Your task to perform on an android device: Check the news Image 0: 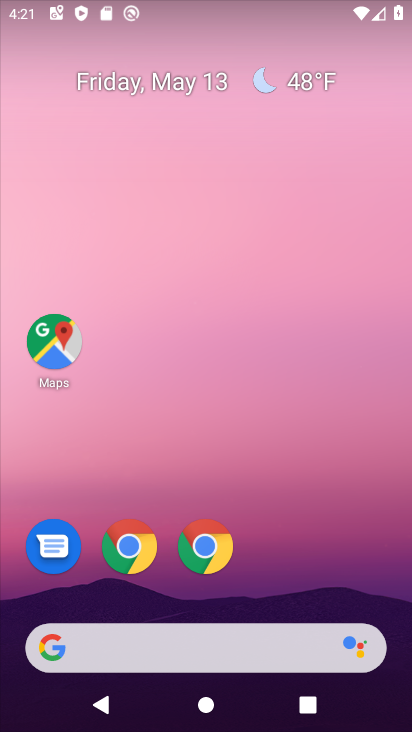
Step 0: drag from (297, 489) to (111, 0)
Your task to perform on an android device: Check the news Image 1: 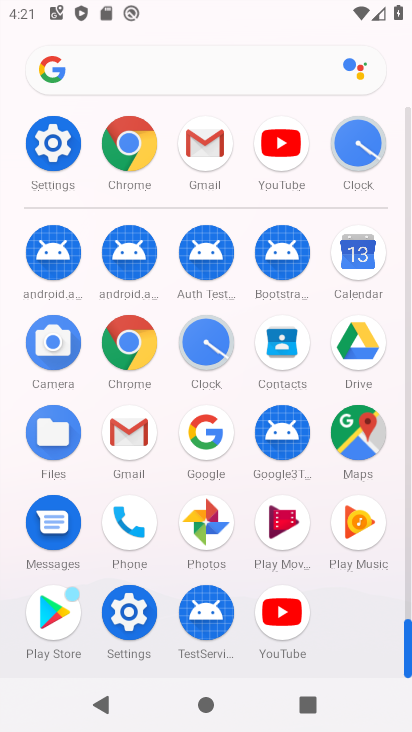
Step 1: press back button
Your task to perform on an android device: Check the news Image 2: 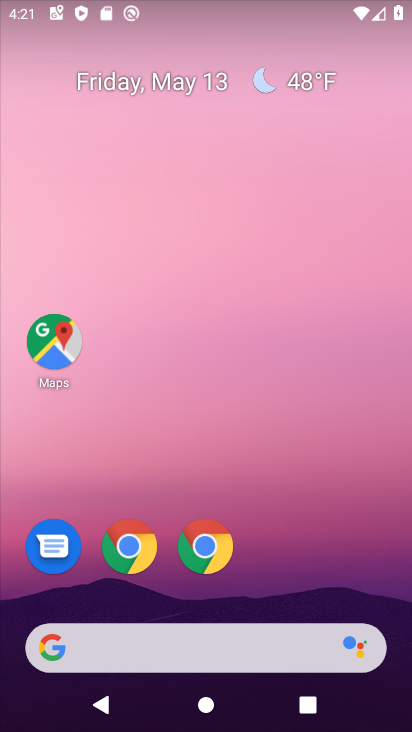
Step 2: drag from (20, 177) to (360, 448)
Your task to perform on an android device: Check the news Image 3: 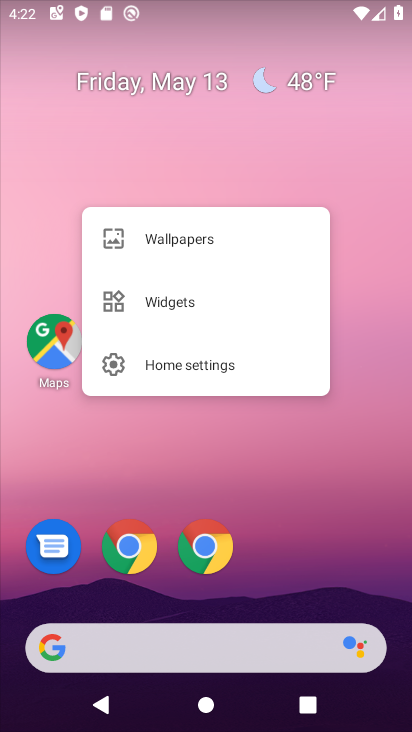
Step 3: drag from (24, 158) to (397, 409)
Your task to perform on an android device: Check the news Image 4: 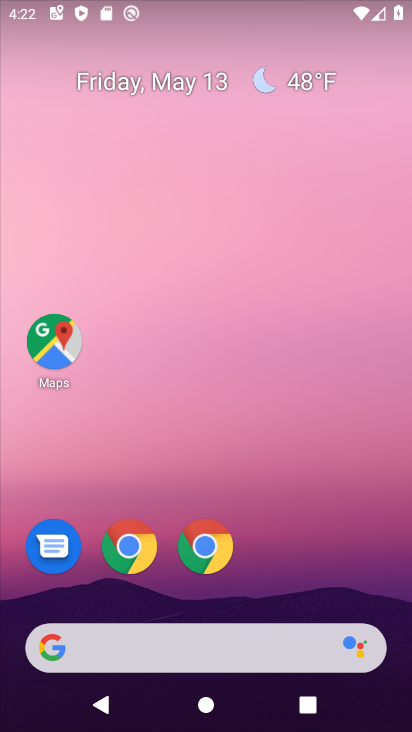
Step 4: drag from (19, 205) to (411, 605)
Your task to perform on an android device: Check the news Image 5: 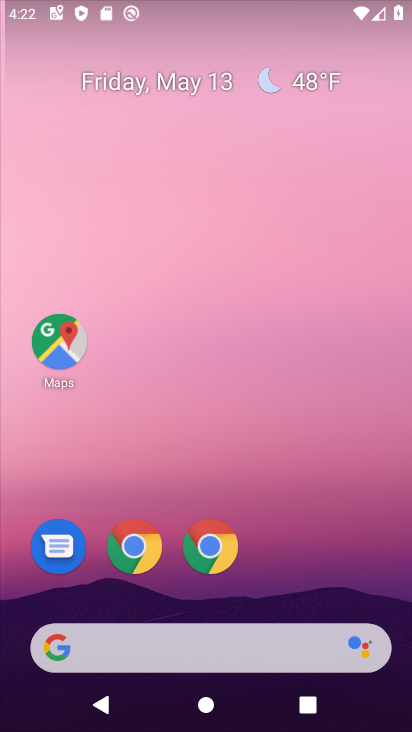
Step 5: drag from (114, 342) to (388, 492)
Your task to perform on an android device: Check the news Image 6: 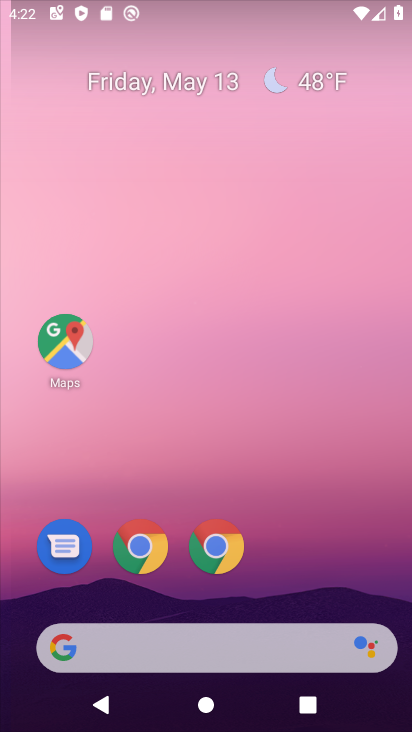
Step 6: drag from (23, 279) to (377, 519)
Your task to perform on an android device: Check the news Image 7: 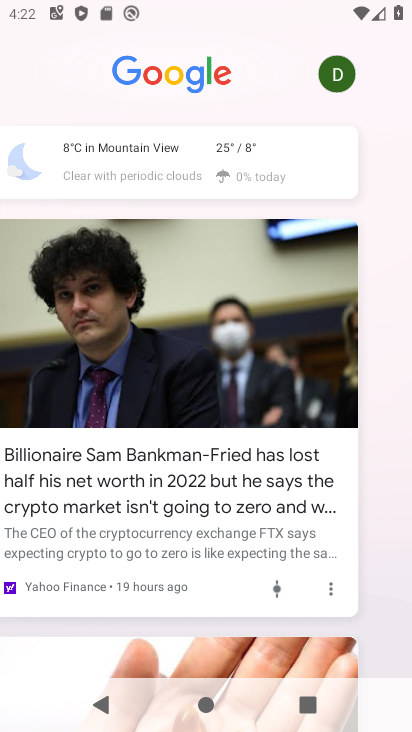
Step 7: drag from (2, 336) to (401, 643)
Your task to perform on an android device: Check the news Image 8: 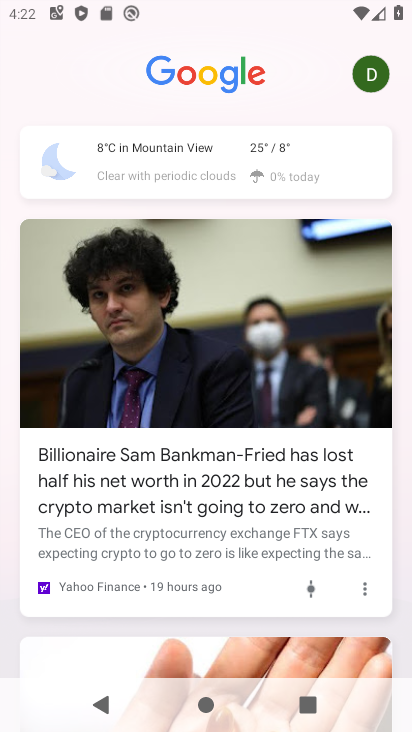
Step 8: drag from (186, 512) to (306, 119)
Your task to perform on an android device: Check the news Image 9: 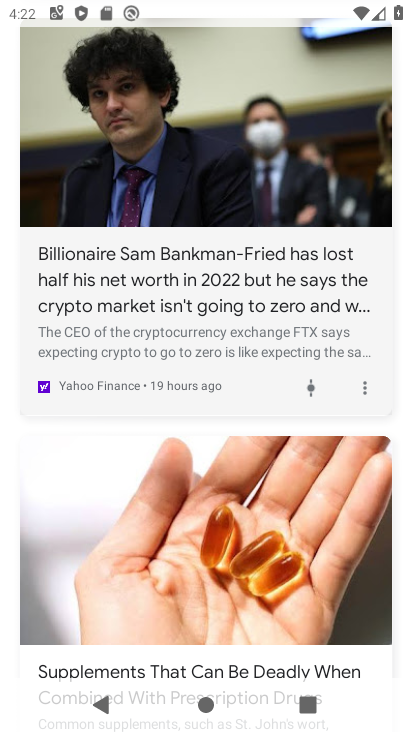
Step 9: drag from (224, 530) to (246, 38)
Your task to perform on an android device: Check the news Image 10: 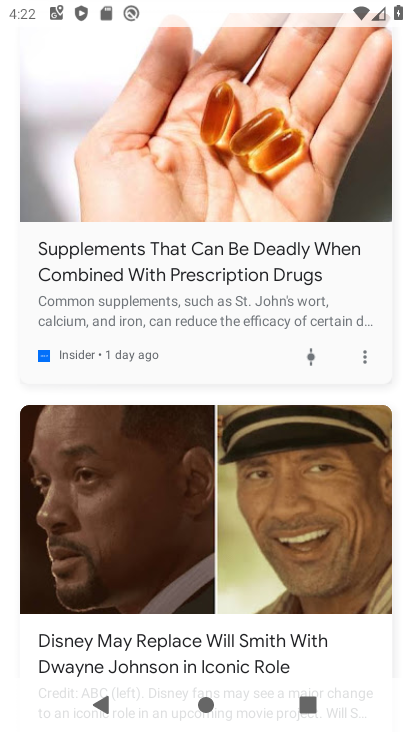
Step 10: drag from (268, 373) to (287, 30)
Your task to perform on an android device: Check the news Image 11: 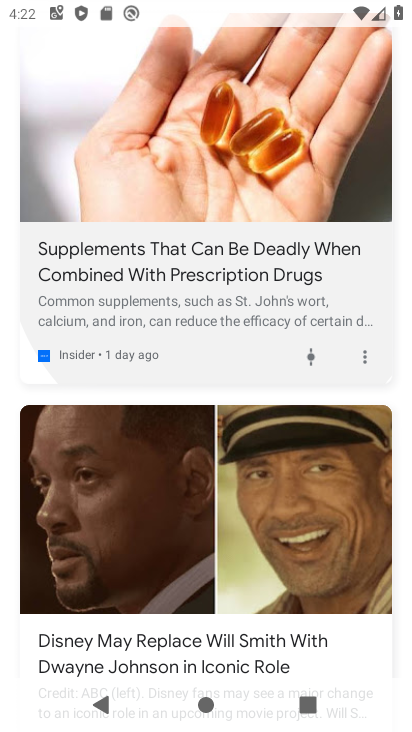
Step 11: drag from (361, 545) to (361, 121)
Your task to perform on an android device: Check the news Image 12: 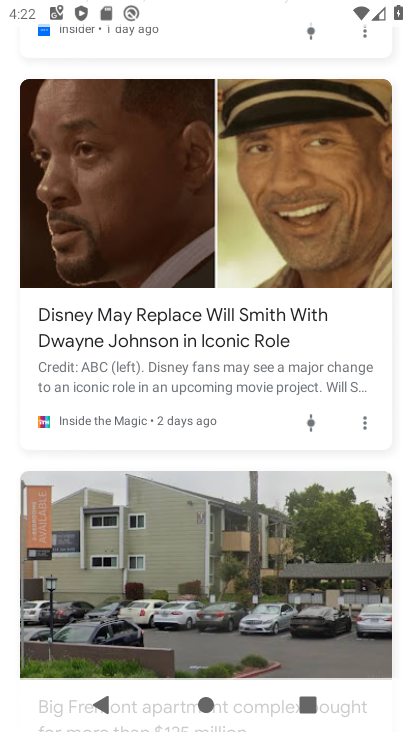
Step 12: drag from (255, 467) to (232, 63)
Your task to perform on an android device: Check the news Image 13: 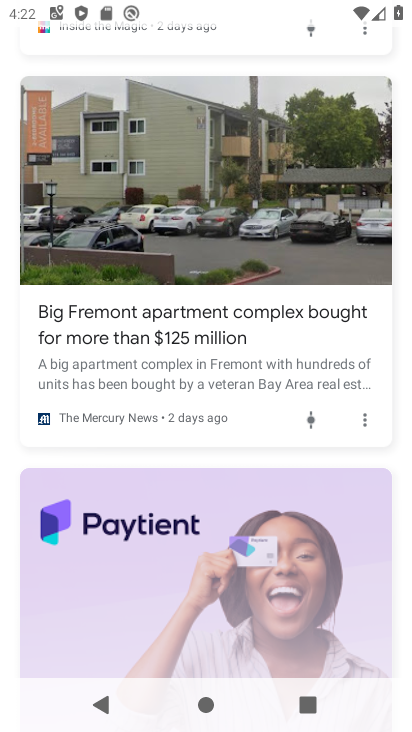
Step 13: drag from (191, 546) to (173, 19)
Your task to perform on an android device: Check the news Image 14: 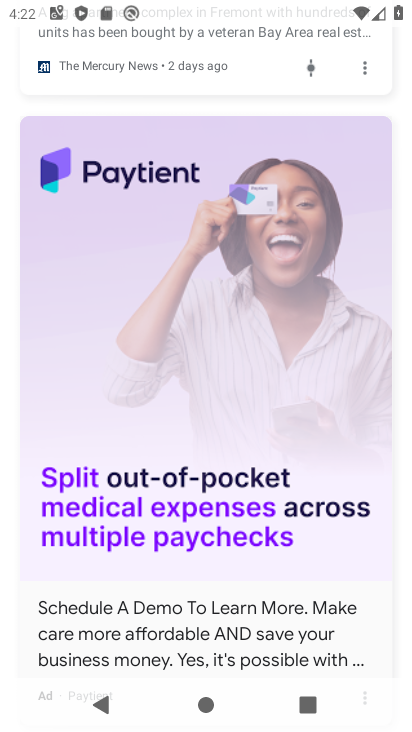
Step 14: drag from (182, 454) to (173, 29)
Your task to perform on an android device: Check the news Image 15: 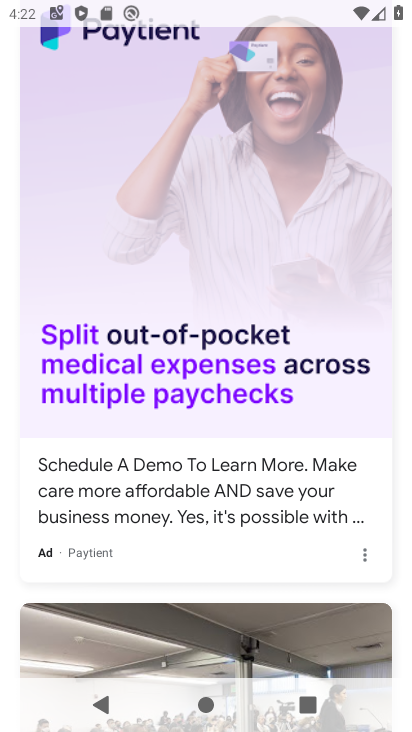
Step 15: drag from (173, 340) to (125, 459)
Your task to perform on an android device: Check the news Image 16: 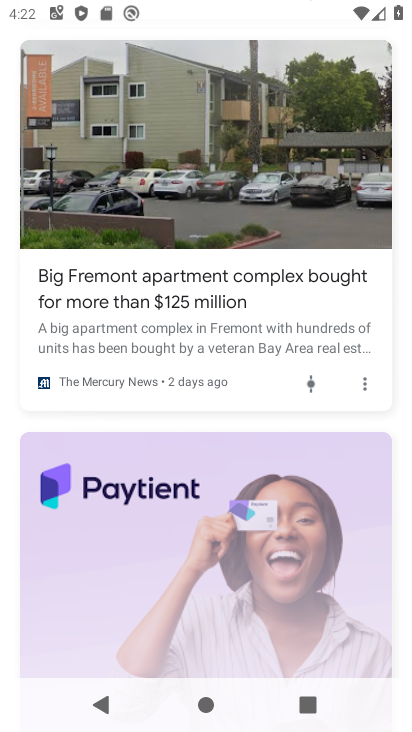
Step 16: click (160, 577)
Your task to perform on an android device: Check the news Image 17: 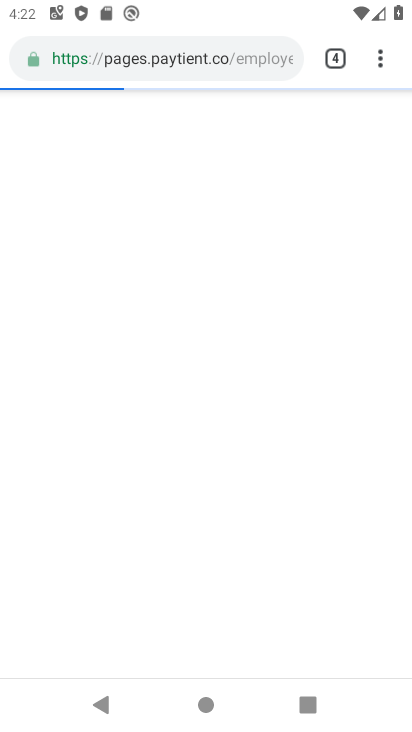
Step 17: task complete